Your task to perform on an android device: Show me productivity apps on the Play Store Image 0: 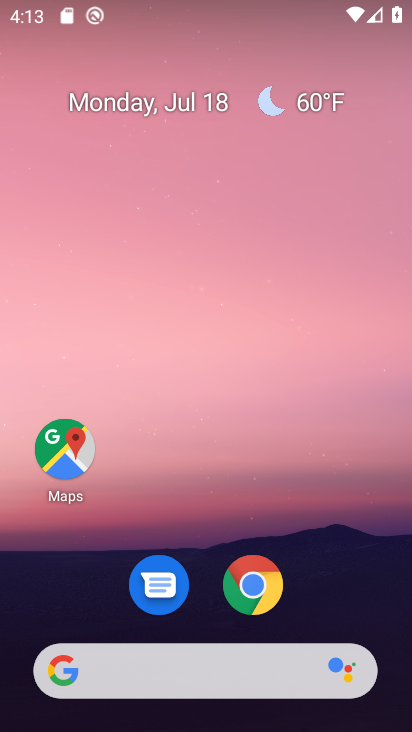
Step 0: drag from (221, 521) to (289, 5)
Your task to perform on an android device: Show me productivity apps on the Play Store Image 1: 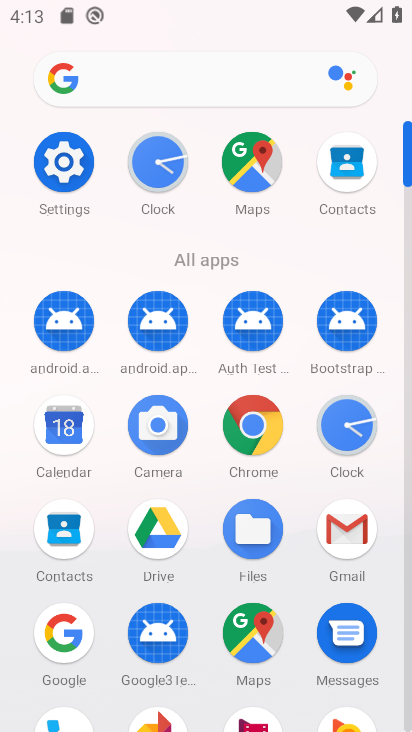
Step 1: drag from (107, 468) to (189, 146)
Your task to perform on an android device: Show me productivity apps on the Play Store Image 2: 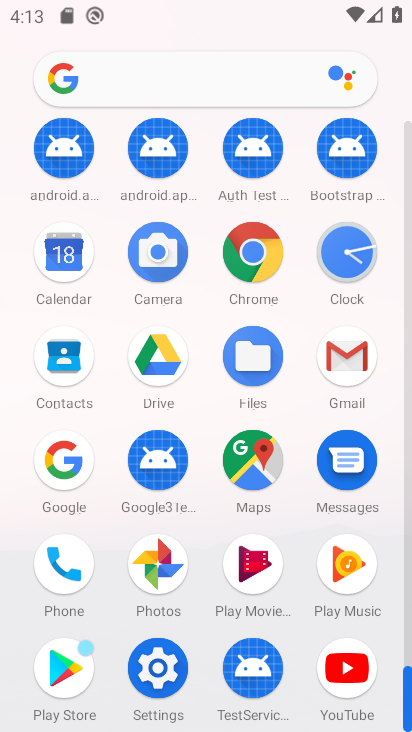
Step 2: click (57, 663)
Your task to perform on an android device: Show me productivity apps on the Play Store Image 3: 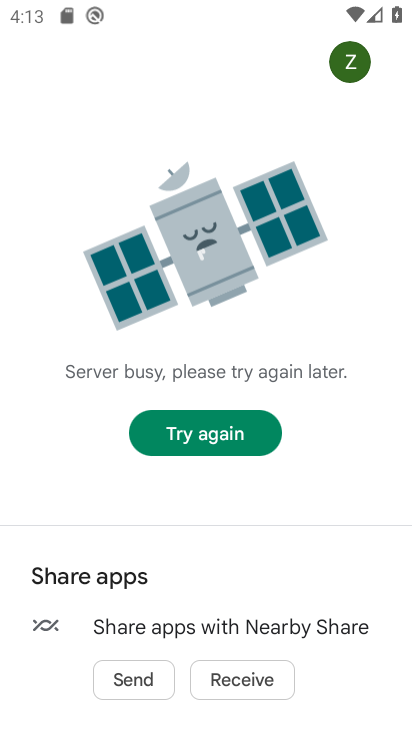
Step 3: click (244, 438)
Your task to perform on an android device: Show me productivity apps on the Play Store Image 4: 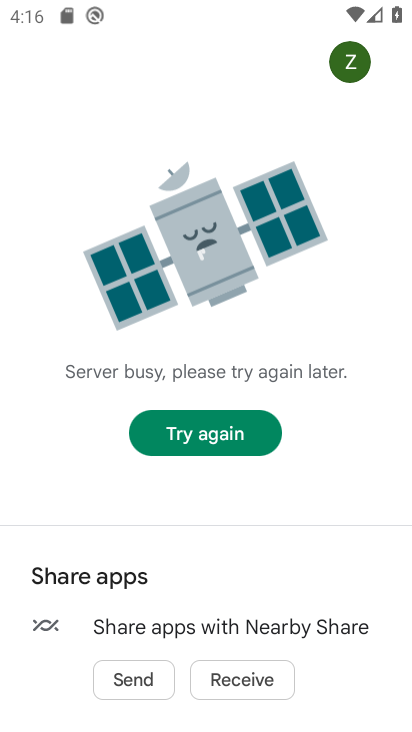
Step 4: task complete